Your task to perform on an android device: change keyboard looks Image 0: 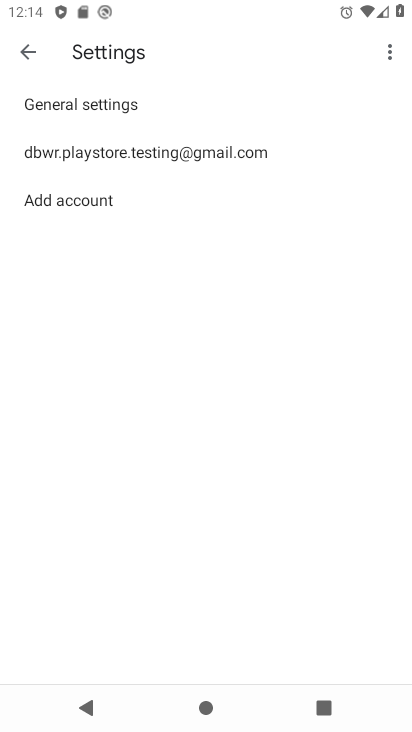
Step 0: press home button
Your task to perform on an android device: change keyboard looks Image 1: 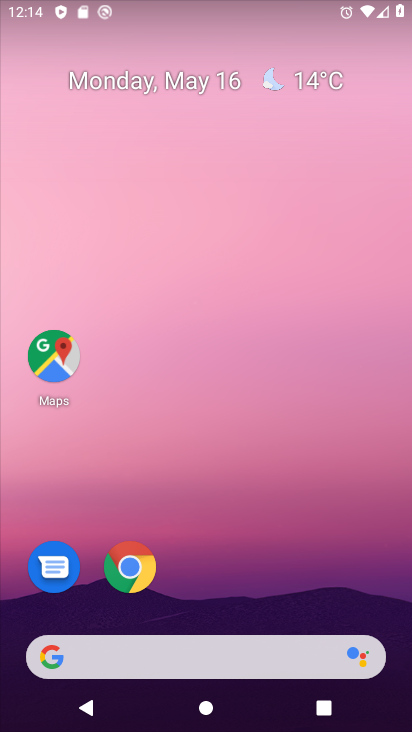
Step 1: drag from (236, 593) to (349, 55)
Your task to perform on an android device: change keyboard looks Image 2: 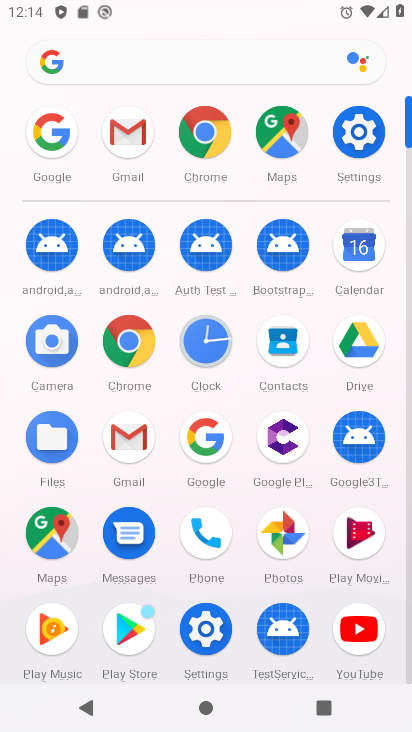
Step 2: click (367, 126)
Your task to perform on an android device: change keyboard looks Image 3: 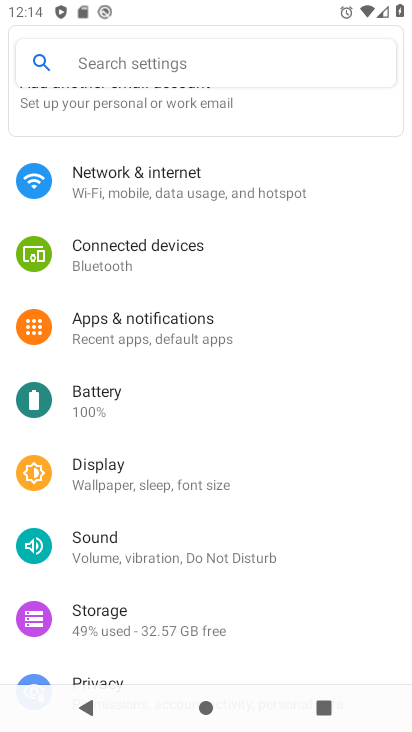
Step 3: drag from (161, 577) to (261, 169)
Your task to perform on an android device: change keyboard looks Image 4: 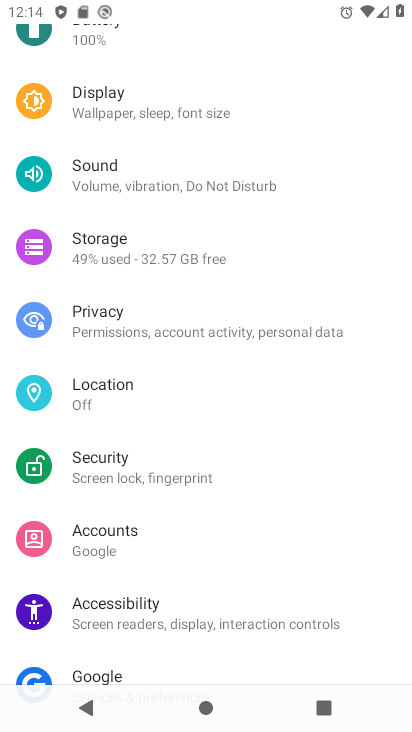
Step 4: drag from (251, 543) to (228, 293)
Your task to perform on an android device: change keyboard looks Image 5: 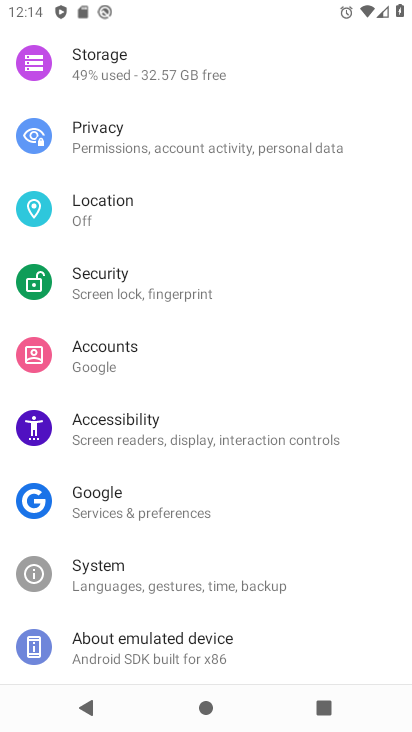
Step 5: click (160, 579)
Your task to perform on an android device: change keyboard looks Image 6: 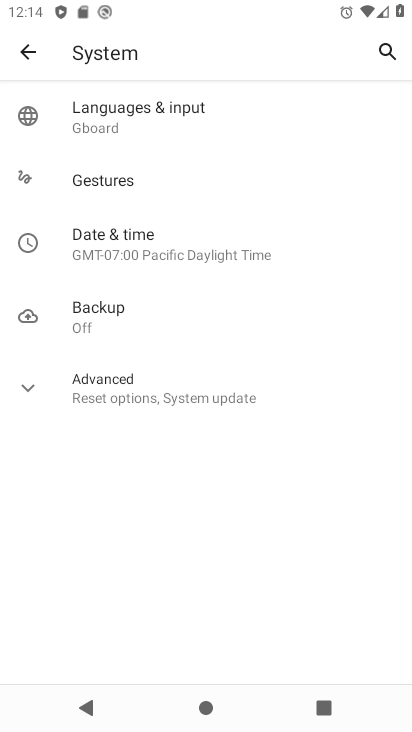
Step 6: click (192, 126)
Your task to perform on an android device: change keyboard looks Image 7: 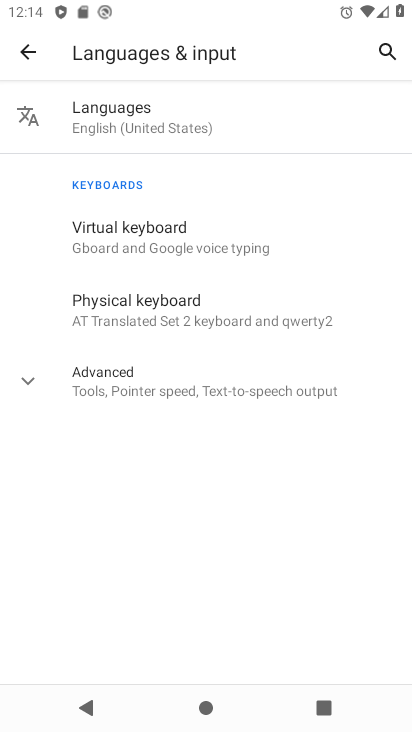
Step 7: click (136, 243)
Your task to perform on an android device: change keyboard looks Image 8: 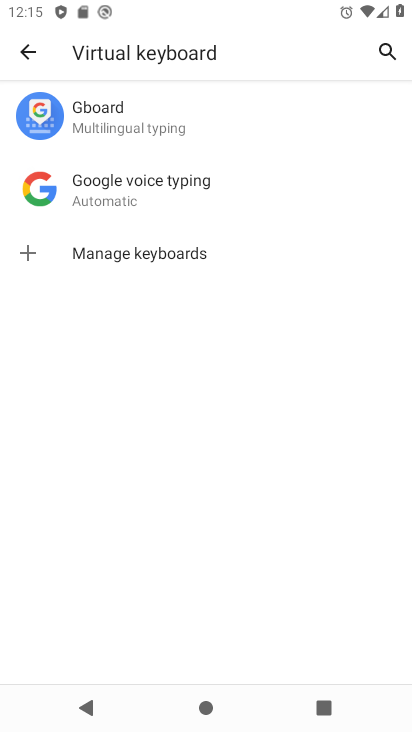
Step 8: click (177, 103)
Your task to perform on an android device: change keyboard looks Image 9: 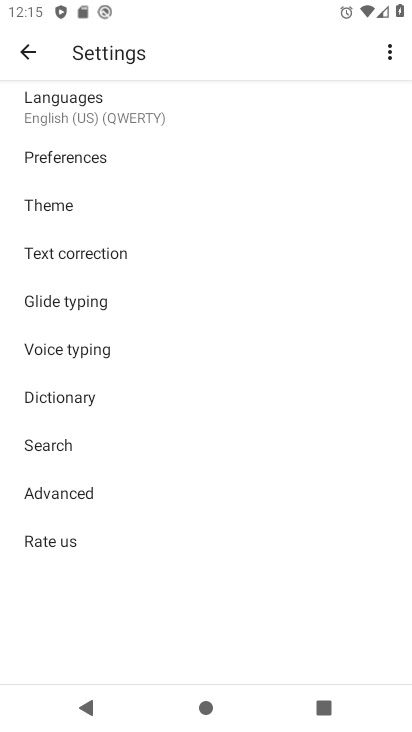
Step 9: click (86, 205)
Your task to perform on an android device: change keyboard looks Image 10: 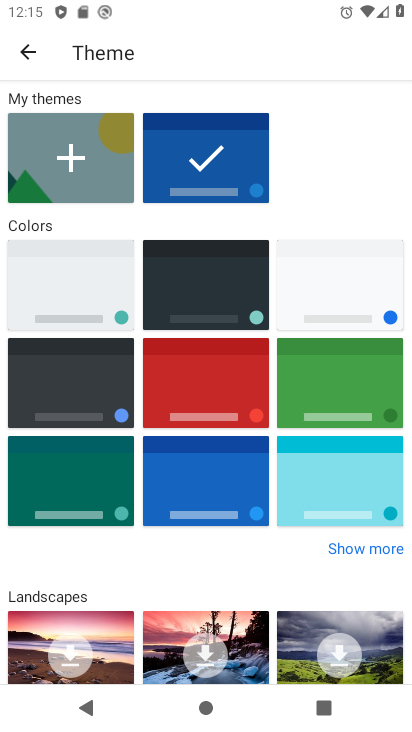
Step 10: click (84, 411)
Your task to perform on an android device: change keyboard looks Image 11: 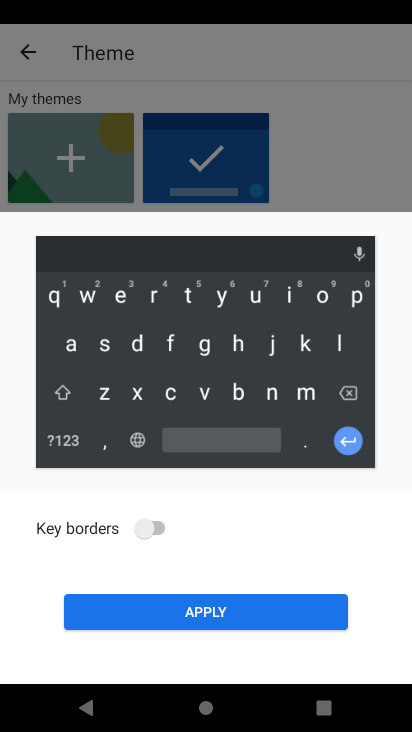
Step 11: click (180, 603)
Your task to perform on an android device: change keyboard looks Image 12: 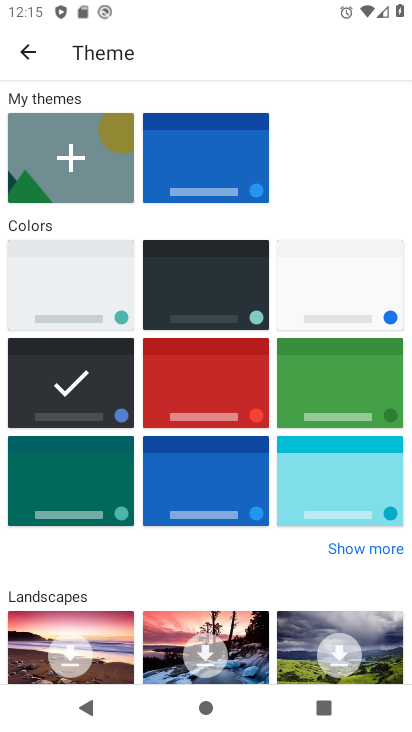
Step 12: task complete